Your task to perform on an android device: change timer sound Image 0: 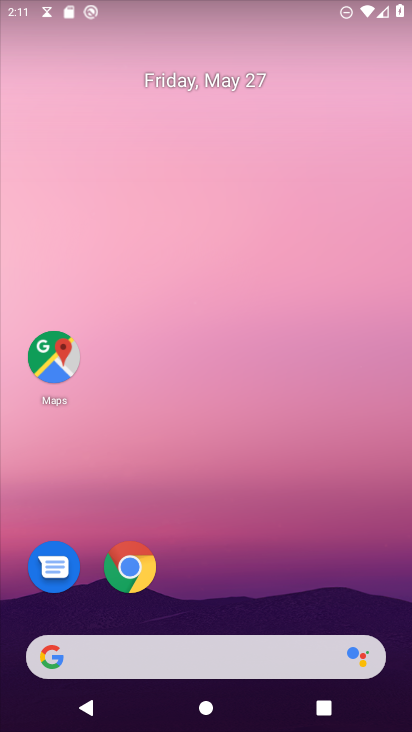
Step 0: drag from (240, 593) to (199, 111)
Your task to perform on an android device: change timer sound Image 1: 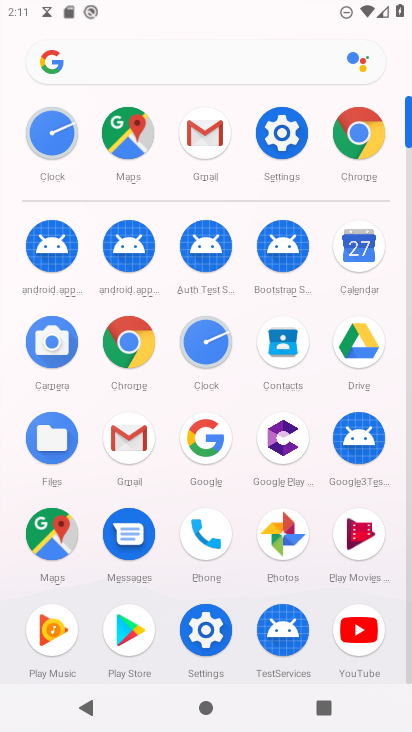
Step 1: click (281, 136)
Your task to perform on an android device: change timer sound Image 2: 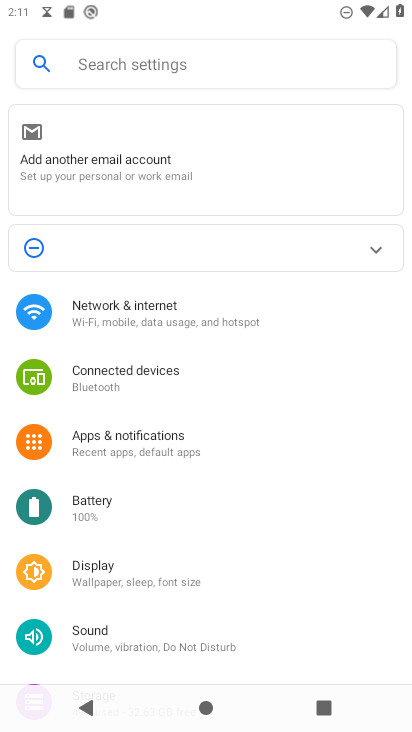
Step 2: press home button
Your task to perform on an android device: change timer sound Image 3: 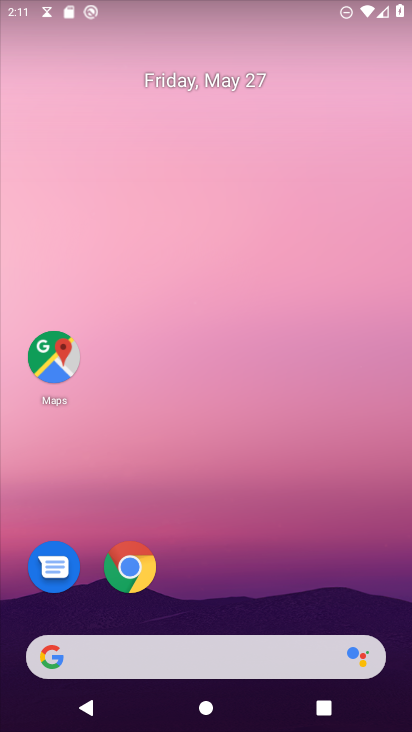
Step 3: drag from (241, 618) to (211, 101)
Your task to perform on an android device: change timer sound Image 4: 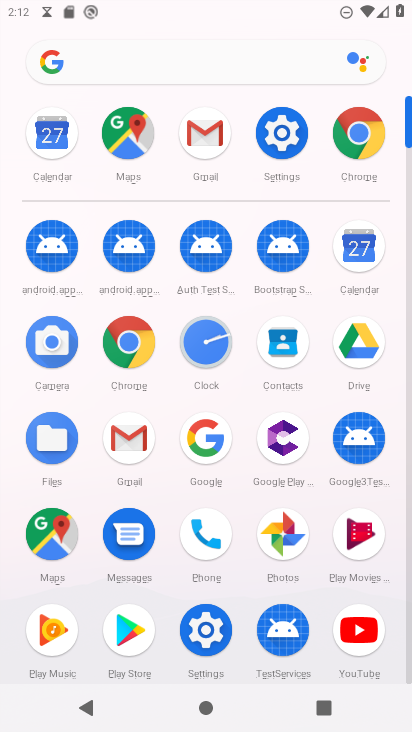
Step 4: click (226, 353)
Your task to perform on an android device: change timer sound Image 5: 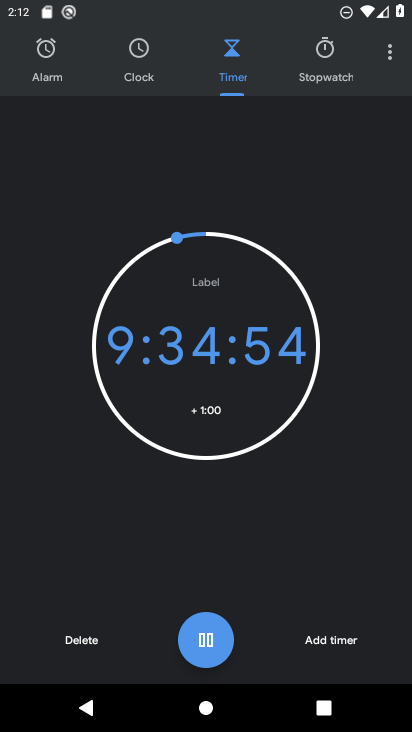
Step 5: click (389, 64)
Your task to perform on an android device: change timer sound Image 6: 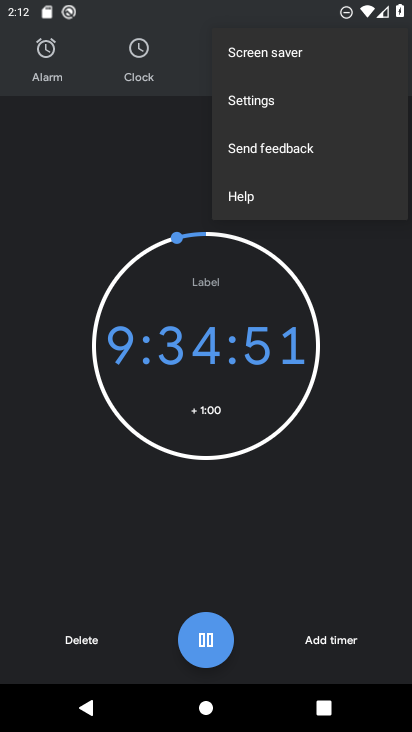
Step 6: click (342, 102)
Your task to perform on an android device: change timer sound Image 7: 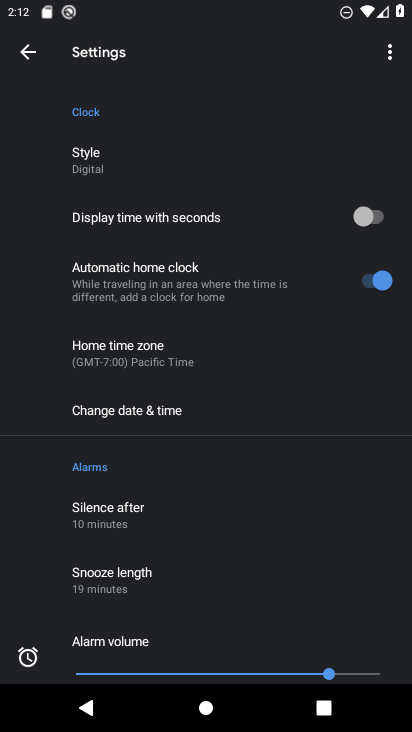
Step 7: drag from (189, 596) to (186, 297)
Your task to perform on an android device: change timer sound Image 8: 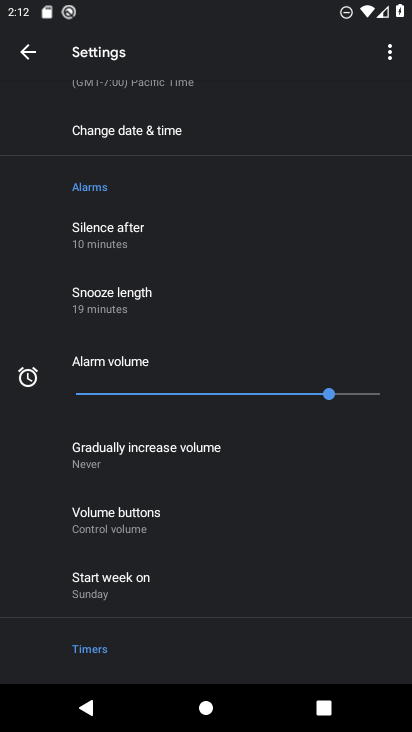
Step 8: drag from (201, 554) to (199, 226)
Your task to perform on an android device: change timer sound Image 9: 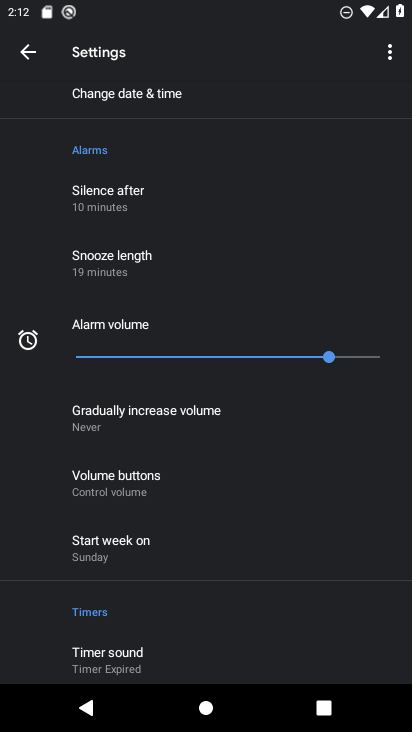
Step 9: click (150, 660)
Your task to perform on an android device: change timer sound Image 10: 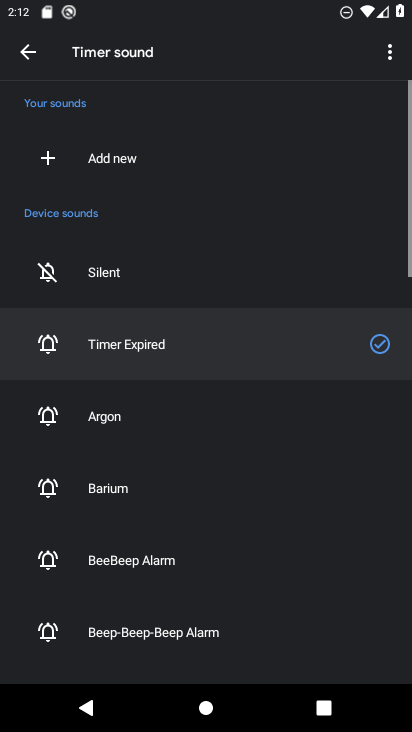
Step 10: click (139, 484)
Your task to perform on an android device: change timer sound Image 11: 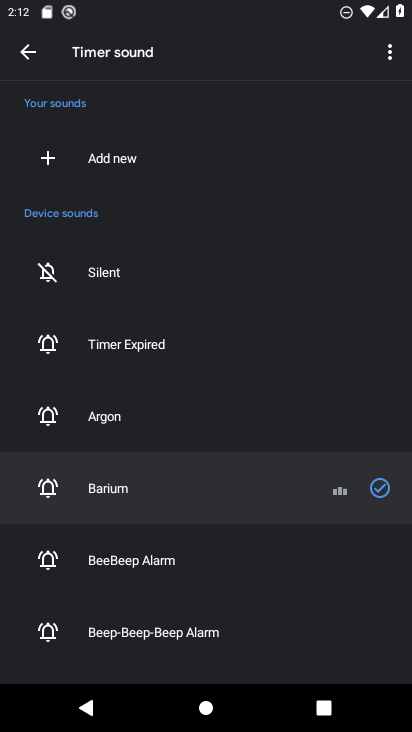
Step 11: task complete